Your task to perform on an android device: install app "YouTube Kids" Image 0: 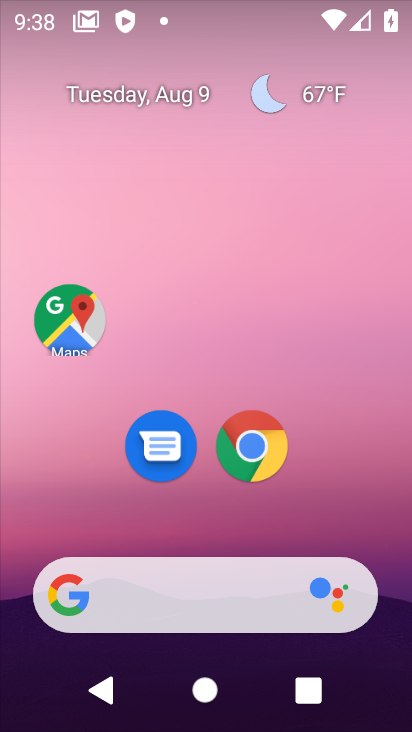
Step 0: drag from (255, 529) to (311, 107)
Your task to perform on an android device: install app "YouTube Kids" Image 1: 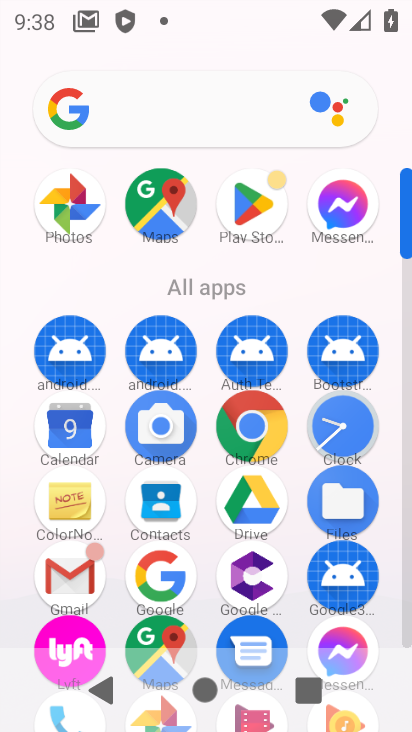
Step 1: drag from (220, 615) to (294, 26)
Your task to perform on an android device: install app "YouTube Kids" Image 2: 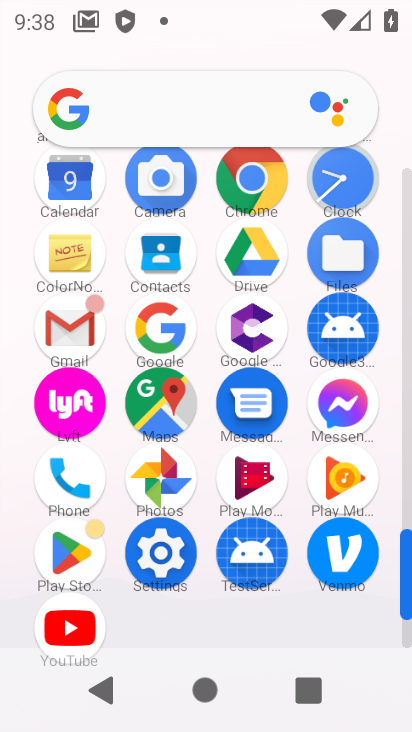
Step 2: click (71, 540)
Your task to perform on an android device: install app "YouTube Kids" Image 3: 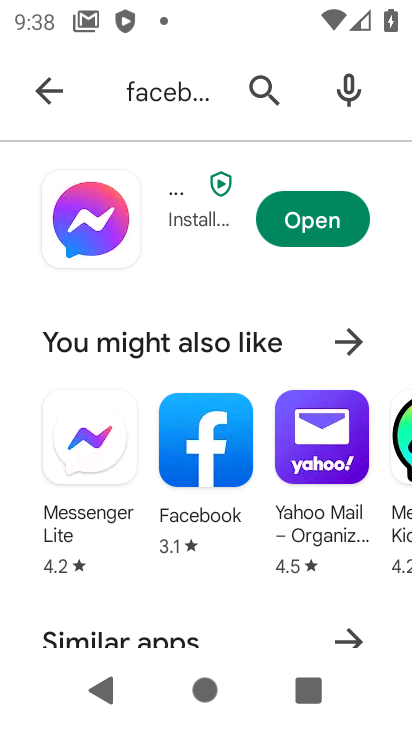
Step 3: click (259, 93)
Your task to perform on an android device: install app "YouTube Kids" Image 4: 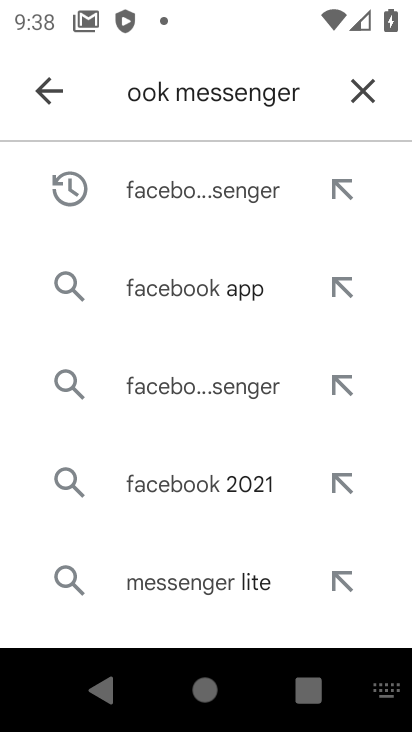
Step 4: click (364, 84)
Your task to perform on an android device: install app "YouTube Kids" Image 5: 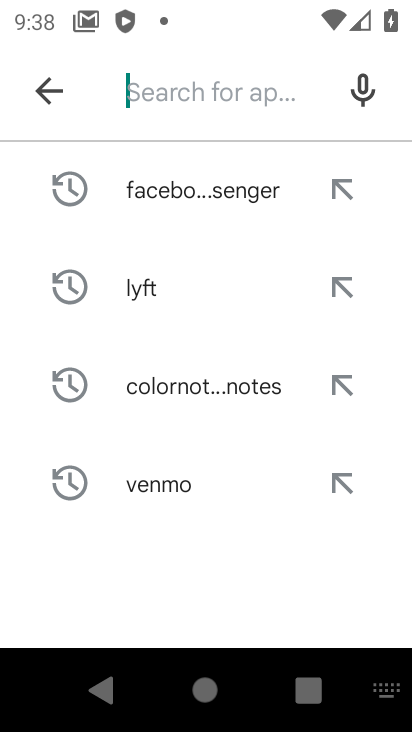
Step 5: click (135, 96)
Your task to perform on an android device: install app "YouTube Kids" Image 6: 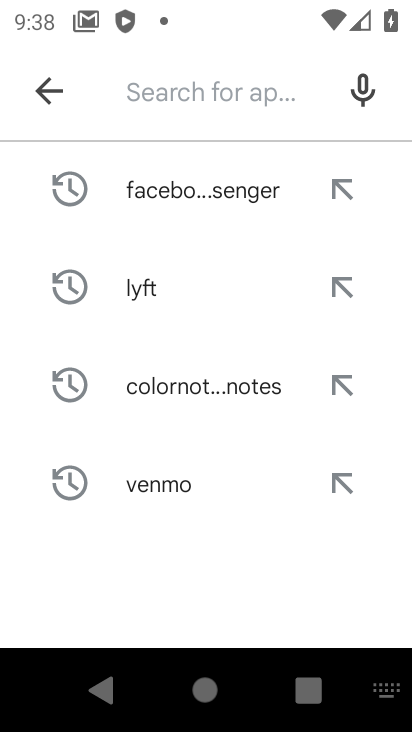
Step 6: type "youtubekids"
Your task to perform on an android device: install app "YouTube Kids" Image 7: 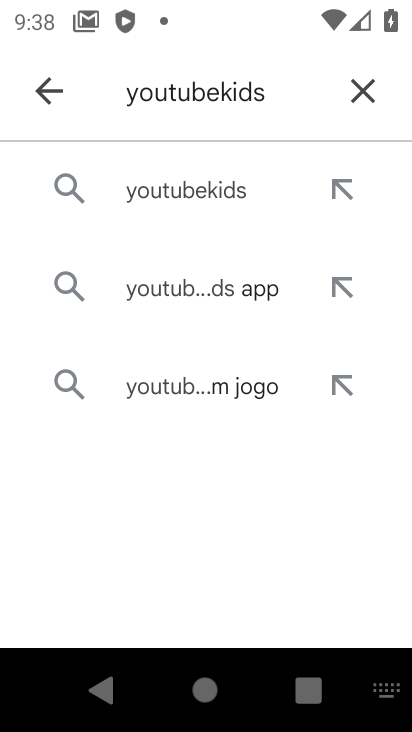
Step 7: click (190, 196)
Your task to perform on an android device: install app "YouTube Kids" Image 8: 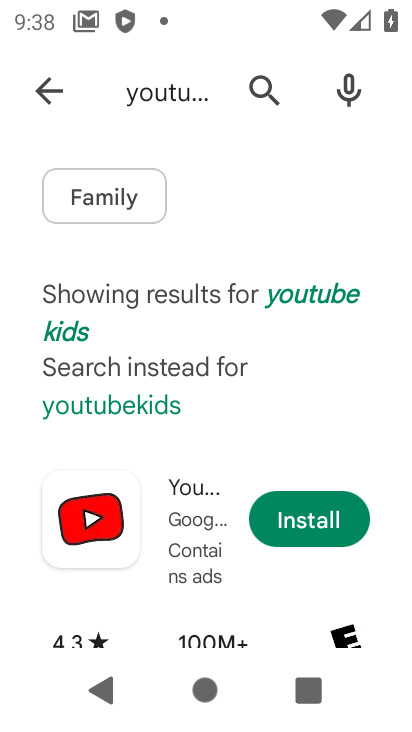
Step 8: drag from (173, 556) to (214, 311)
Your task to perform on an android device: install app "YouTube Kids" Image 9: 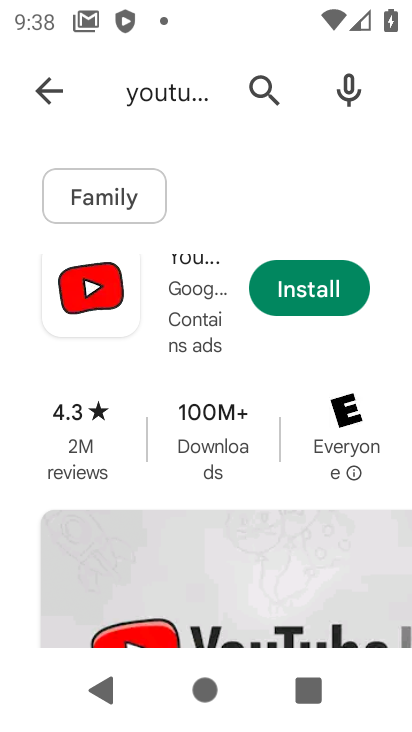
Step 9: click (316, 275)
Your task to perform on an android device: install app "YouTube Kids" Image 10: 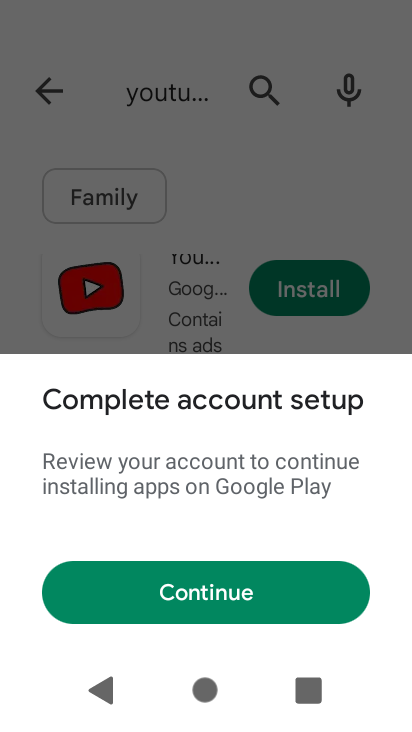
Step 10: click (163, 582)
Your task to perform on an android device: install app "YouTube Kids" Image 11: 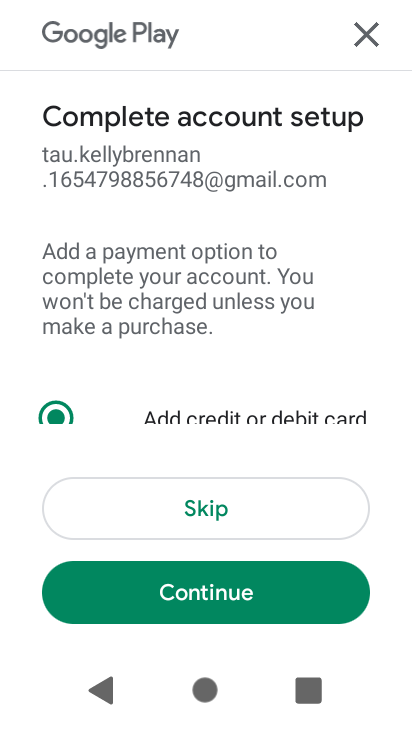
Step 11: drag from (156, 390) to (270, 10)
Your task to perform on an android device: install app "YouTube Kids" Image 12: 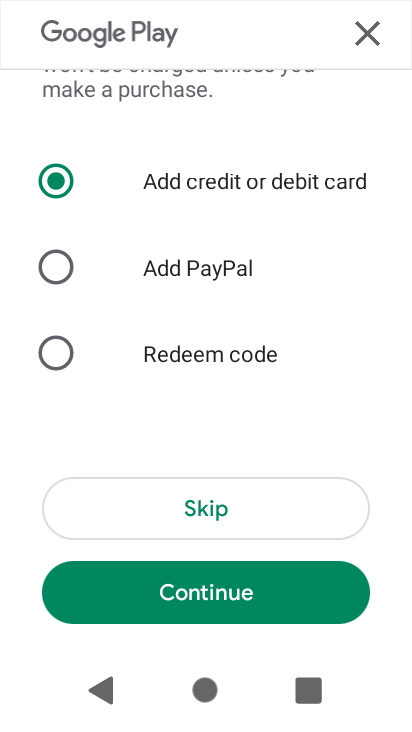
Step 12: click (173, 504)
Your task to perform on an android device: install app "YouTube Kids" Image 13: 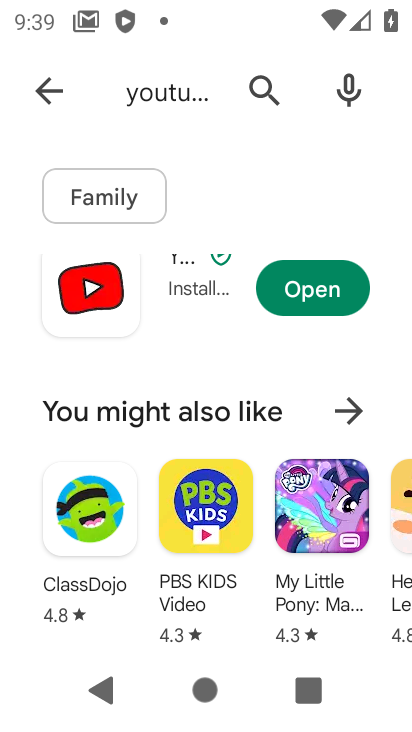
Step 13: click (299, 269)
Your task to perform on an android device: install app "YouTube Kids" Image 14: 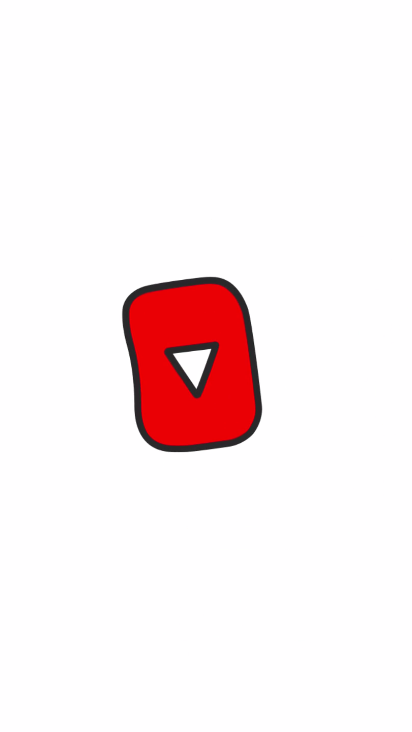
Step 14: task complete